Your task to perform on an android device: Open Android settings Image 0: 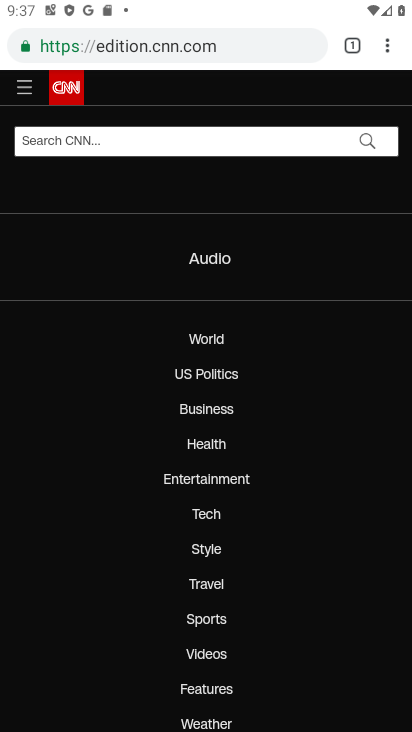
Step 0: press home button
Your task to perform on an android device: Open Android settings Image 1: 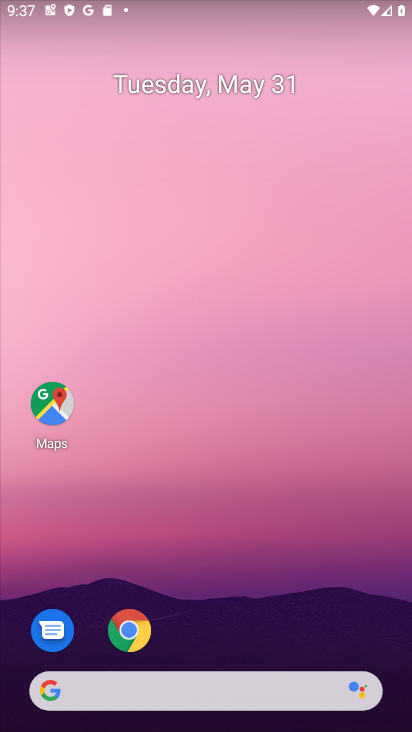
Step 1: drag from (155, 727) to (141, 125)
Your task to perform on an android device: Open Android settings Image 2: 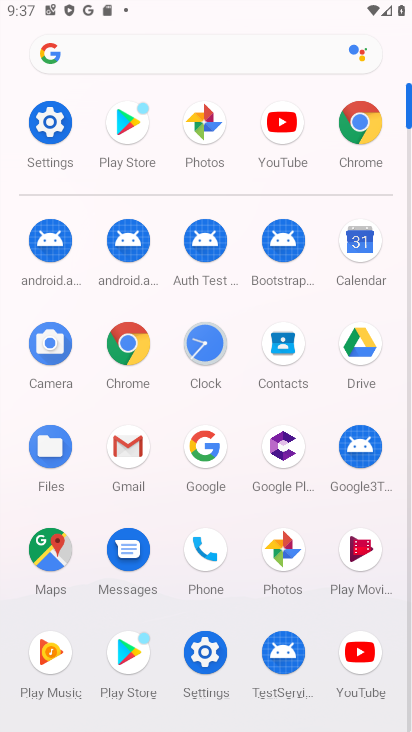
Step 2: click (46, 130)
Your task to perform on an android device: Open Android settings Image 3: 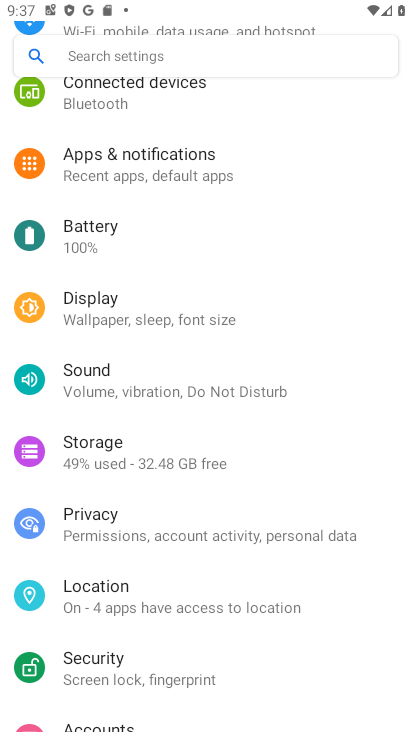
Step 3: task complete